Your task to perform on an android device: delete browsing data in the chrome app Image 0: 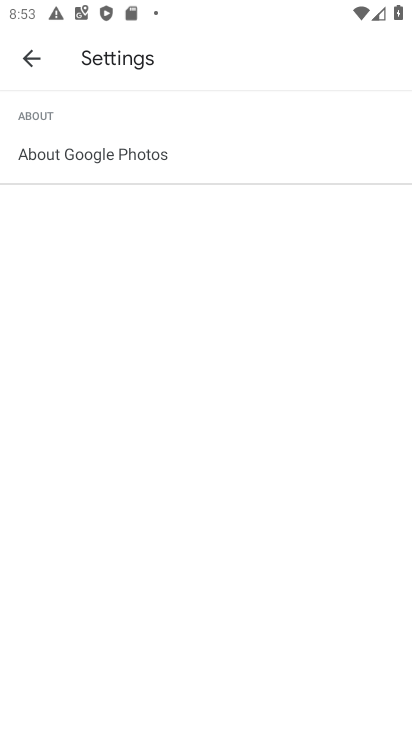
Step 0: press home button
Your task to perform on an android device: delete browsing data in the chrome app Image 1: 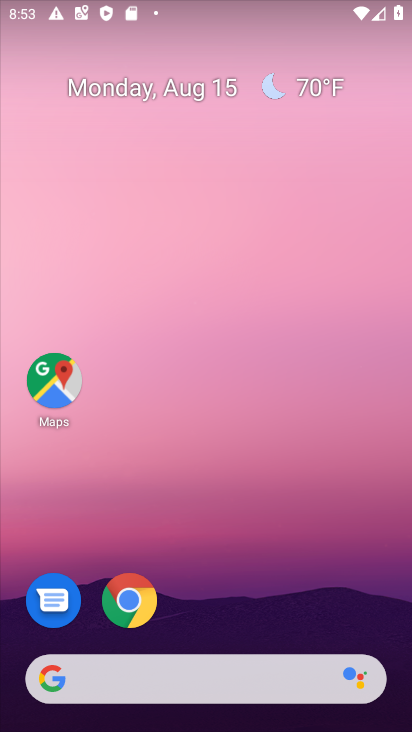
Step 1: drag from (208, 649) to (250, 138)
Your task to perform on an android device: delete browsing data in the chrome app Image 2: 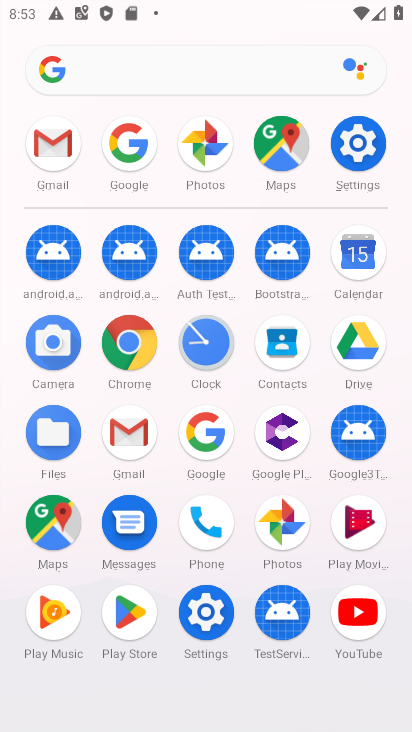
Step 2: drag from (247, 606) to (241, 177)
Your task to perform on an android device: delete browsing data in the chrome app Image 3: 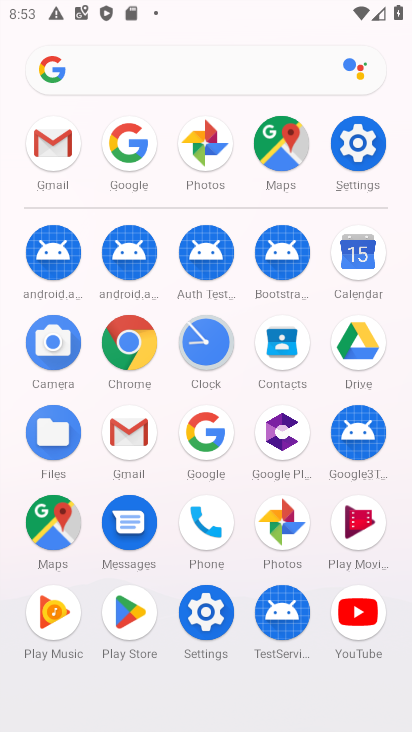
Step 3: click (128, 344)
Your task to perform on an android device: delete browsing data in the chrome app Image 4: 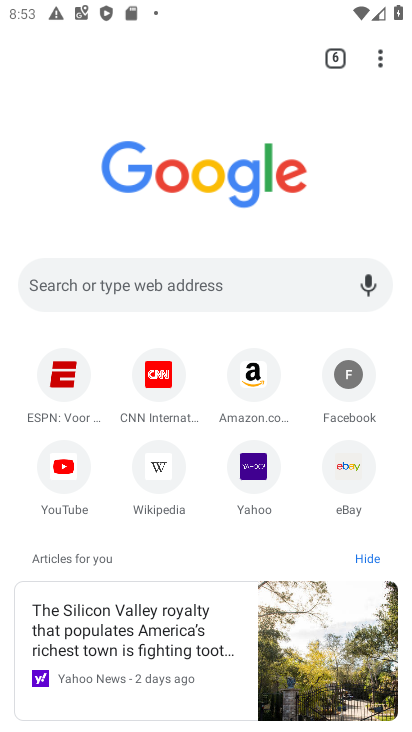
Step 4: drag from (380, 58) to (154, 328)
Your task to perform on an android device: delete browsing data in the chrome app Image 5: 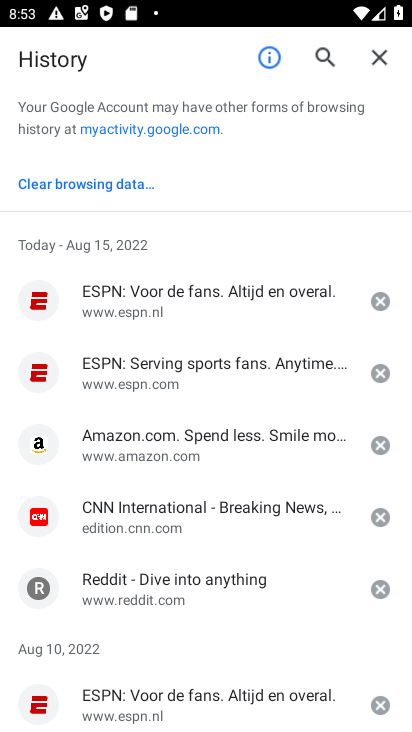
Step 5: click (109, 181)
Your task to perform on an android device: delete browsing data in the chrome app Image 6: 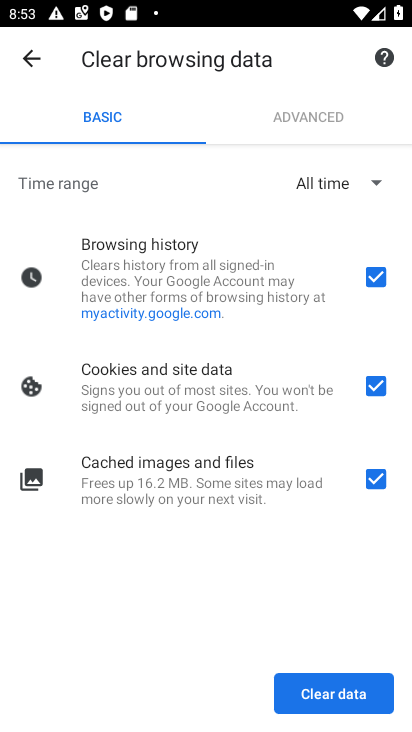
Step 6: click (376, 481)
Your task to perform on an android device: delete browsing data in the chrome app Image 7: 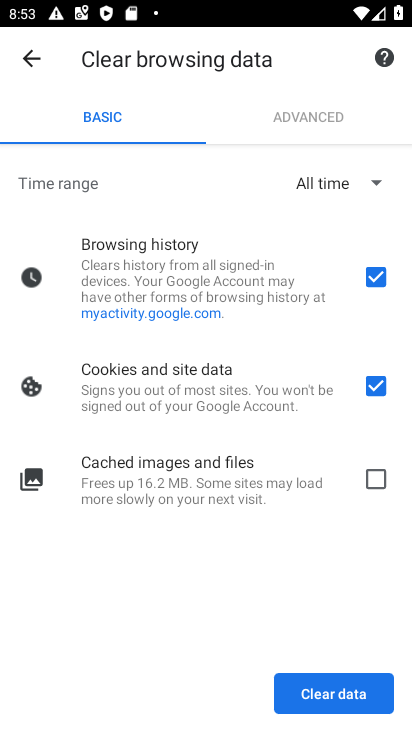
Step 7: click (375, 377)
Your task to perform on an android device: delete browsing data in the chrome app Image 8: 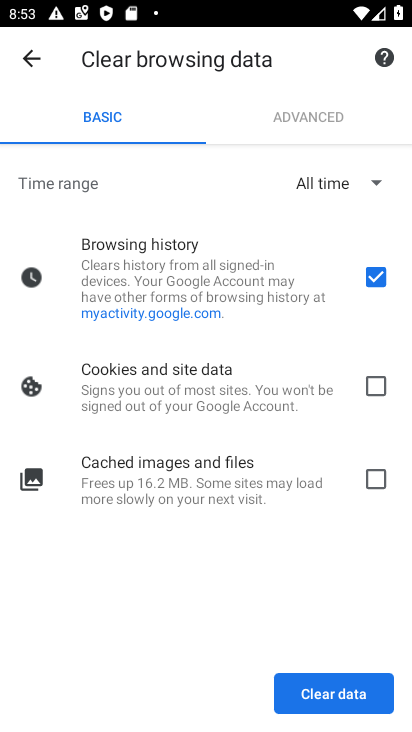
Step 8: click (339, 691)
Your task to perform on an android device: delete browsing data in the chrome app Image 9: 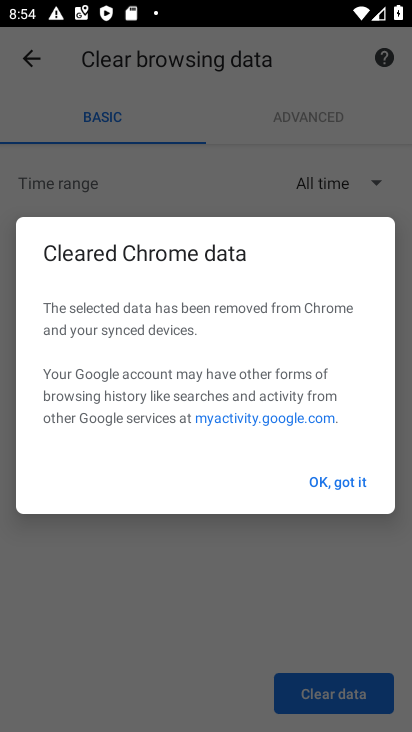
Step 9: click (357, 475)
Your task to perform on an android device: delete browsing data in the chrome app Image 10: 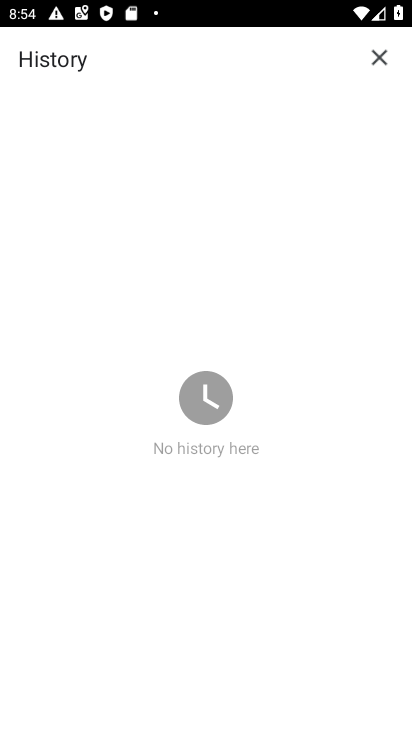
Step 10: task complete